Your task to perform on an android device: turn pop-ups on in chrome Image 0: 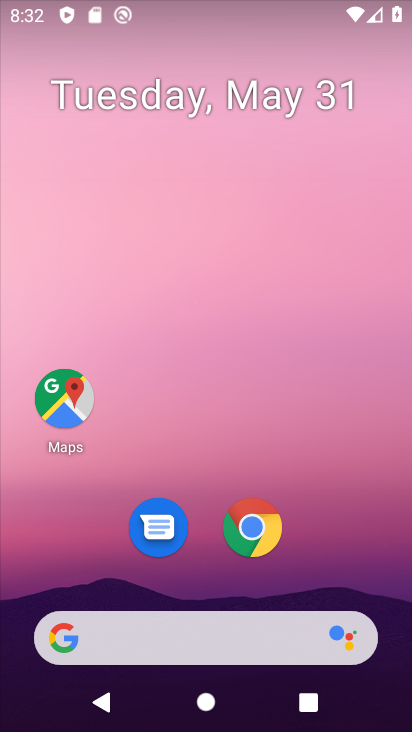
Step 0: drag from (213, 592) to (21, 94)
Your task to perform on an android device: turn pop-ups on in chrome Image 1: 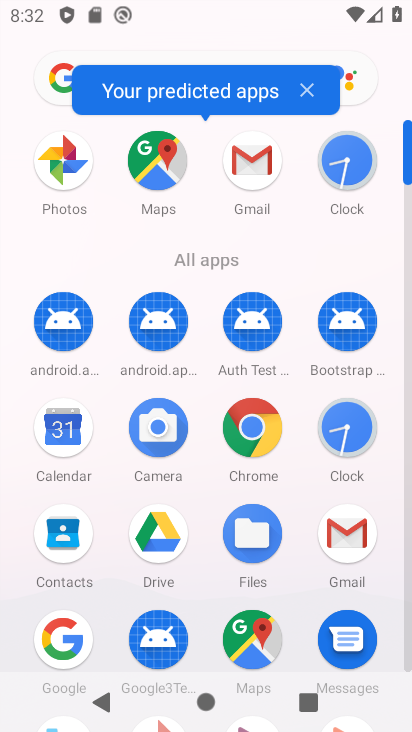
Step 1: click (242, 436)
Your task to perform on an android device: turn pop-ups on in chrome Image 2: 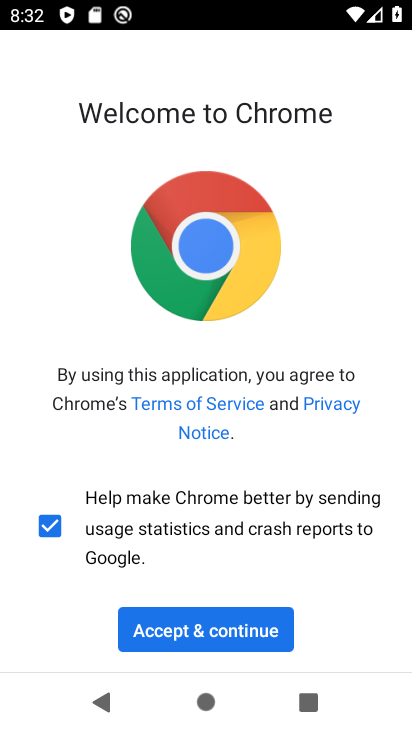
Step 2: click (186, 637)
Your task to perform on an android device: turn pop-ups on in chrome Image 3: 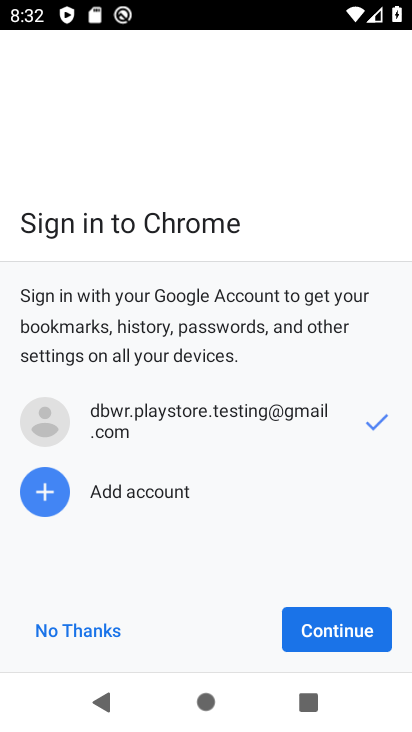
Step 3: click (309, 632)
Your task to perform on an android device: turn pop-ups on in chrome Image 4: 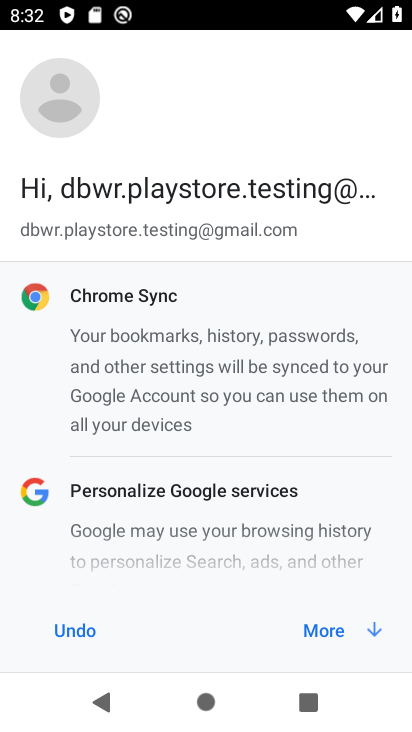
Step 4: click (309, 632)
Your task to perform on an android device: turn pop-ups on in chrome Image 5: 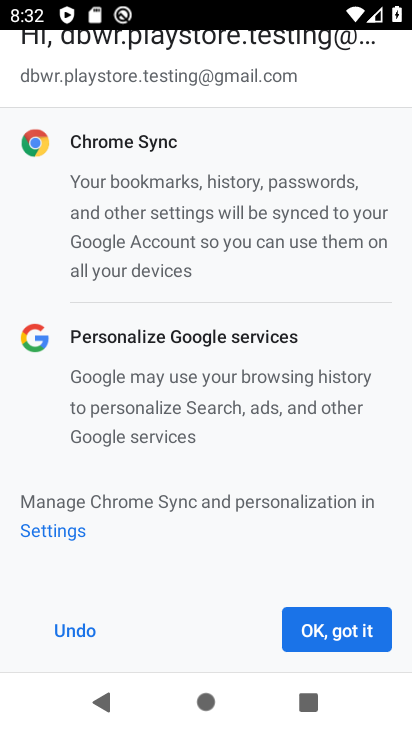
Step 5: click (318, 628)
Your task to perform on an android device: turn pop-ups on in chrome Image 6: 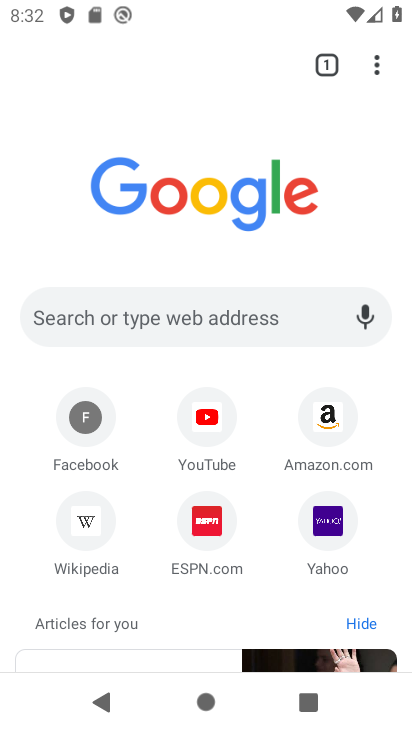
Step 6: click (380, 58)
Your task to perform on an android device: turn pop-ups on in chrome Image 7: 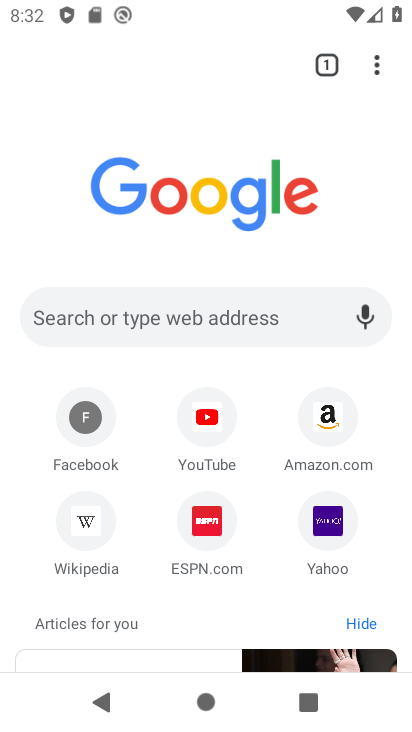
Step 7: click (374, 70)
Your task to perform on an android device: turn pop-ups on in chrome Image 8: 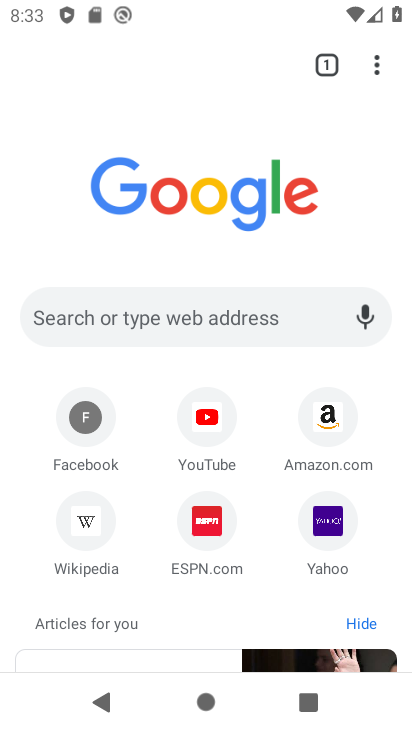
Step 8: click (376, 65)
Your task to perform on an android device: turn pop-ups on in chrome Image 9: 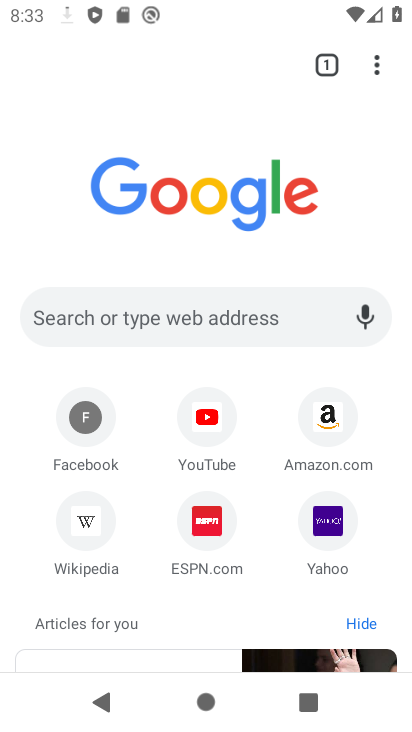
Step 9: click (375, 64)
Your task to perform on an android device: turn pop-ups on in chrome Image 10: 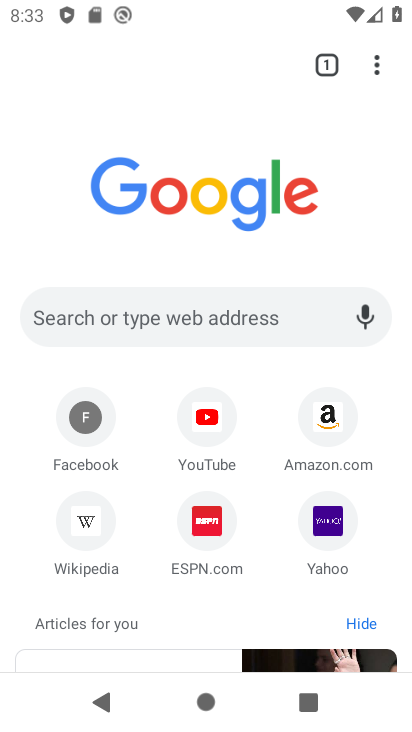
Step 10: click (381, 65)
Your task to perform on an android device: turn pop-ups on in chrome Image 11: 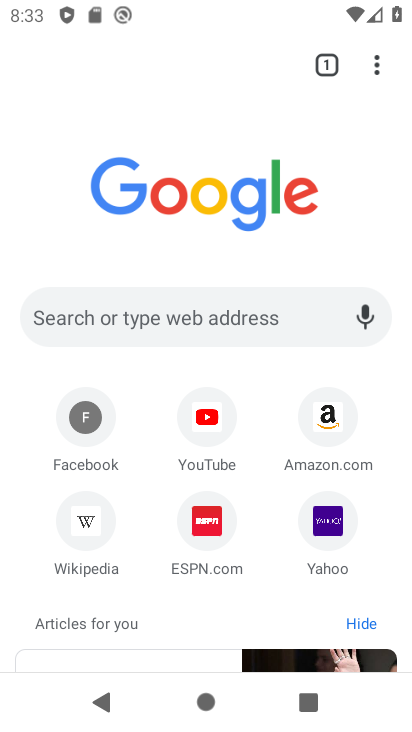
Step 11: click (381, 65)
Your task to perform on an android device: turn pop-ups on in chrome Image 12: 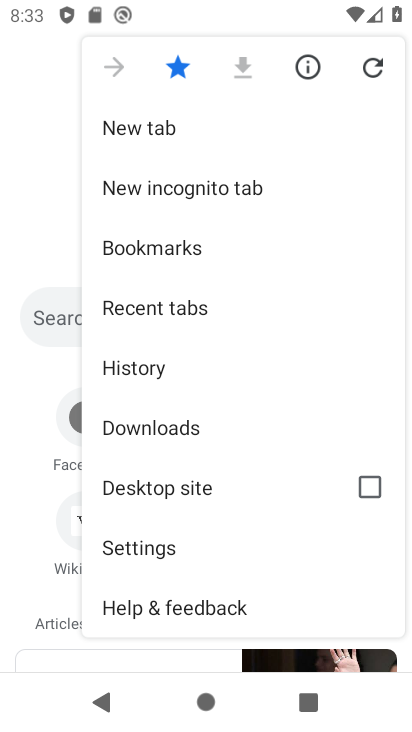
Step 12: click (122, 542)
Your task to perform on an android device: turn pop-ups on in chrome Image 13: 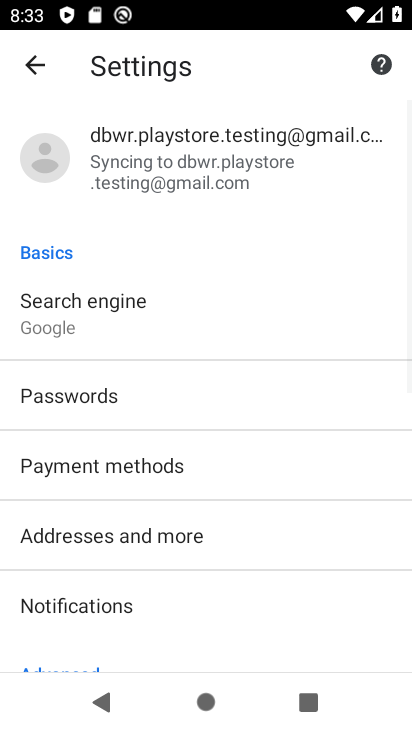
Step 13: drag from (119, 540) to (164, 354)
Your task to perform on an android device: turn pop-ups on in chrome Image 14: 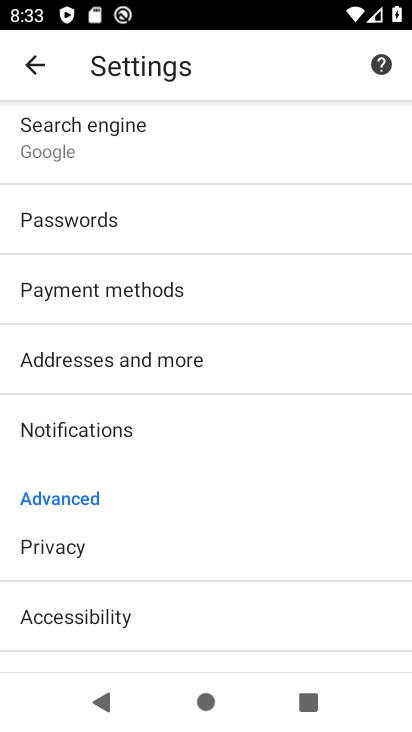
Step 14: drag from (96, 547) to (117, 191)
Your task to perform on an android device: turn pop-ups on in chrome Image 15: 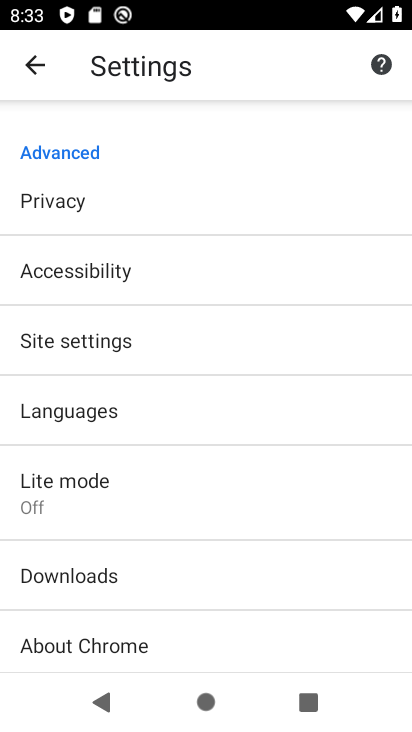
Step 15: click (53, 353)
Your task to perform on an android device: turn pop-ups on in chrome Image 16: 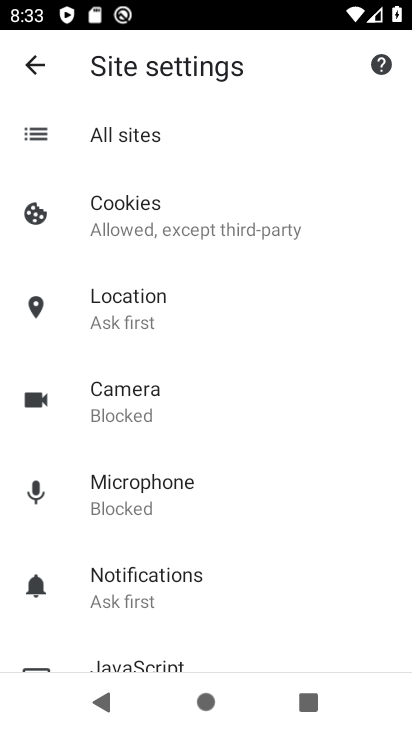
Step 16: drag from (142, 562) to (197, 280)
Your task to perform on an android device: turn pop-ups on in chrome Image 17: 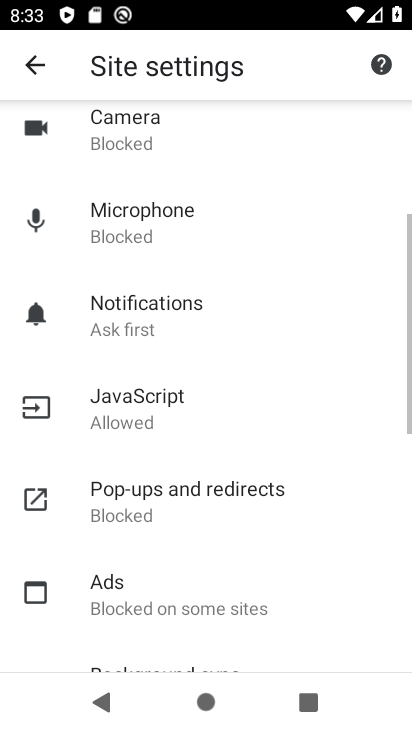
Step 17: click (139, 504)
Your task to perform on an android device: turn pop-ups on in chrome Image 18: 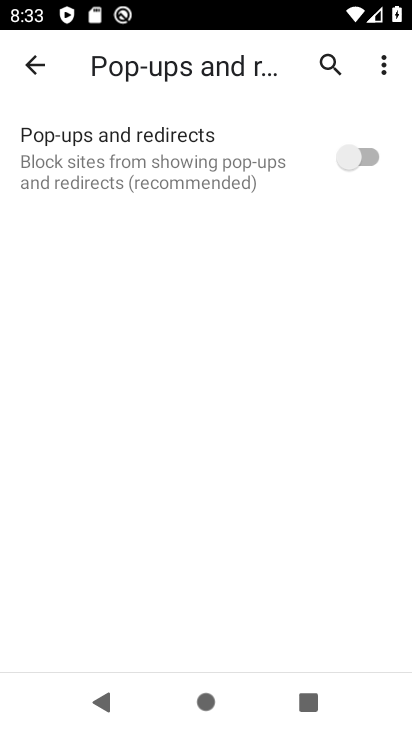
Step 18: click (367, 162)
Your task to perform on an android device: turn pop-ups on in chrome Image 19: 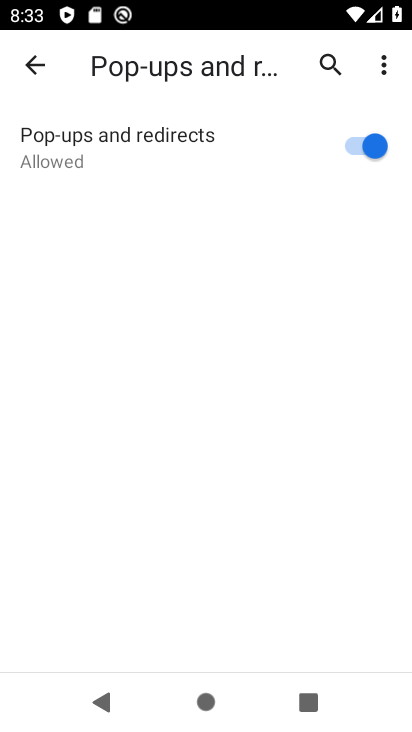
Step 19: task complete